Your task to perform on an android device: What's a good restaurant in Atlanta? Image 0: 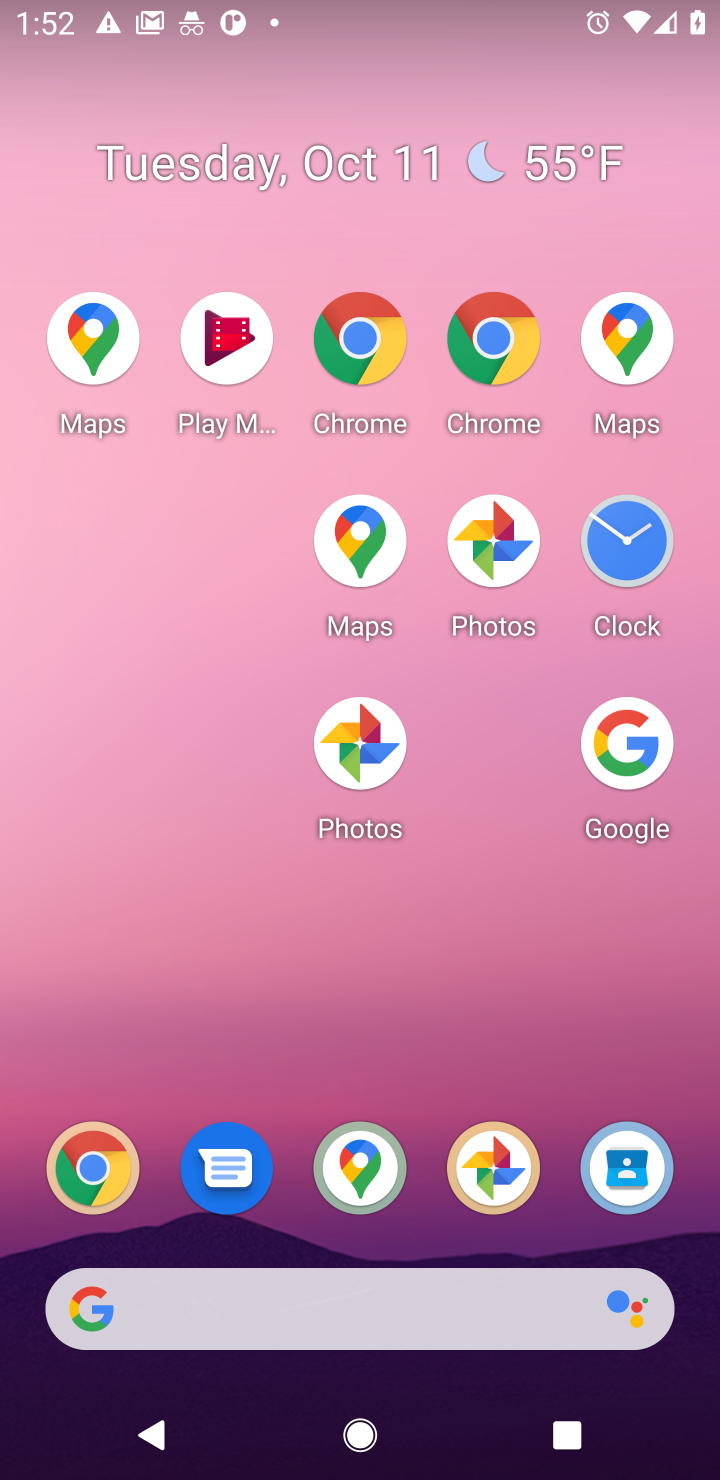
Step 0: click (620, 743)
Your task to perform on an android device: What's a good restaurant in Atlanta? Image 1: 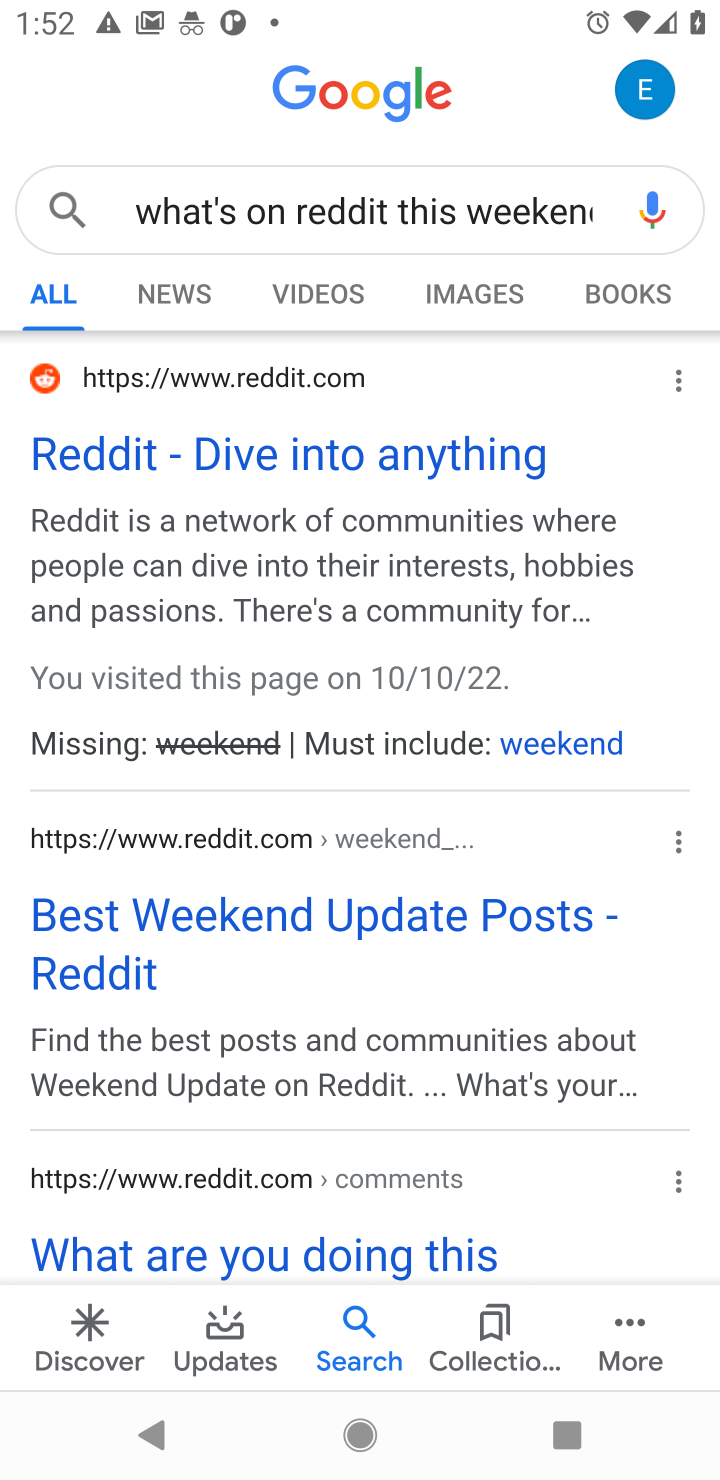
Step 1: click (480, 223)
Your task to perform on an android device: What's a good restaurant in Atlanta? Image 2: 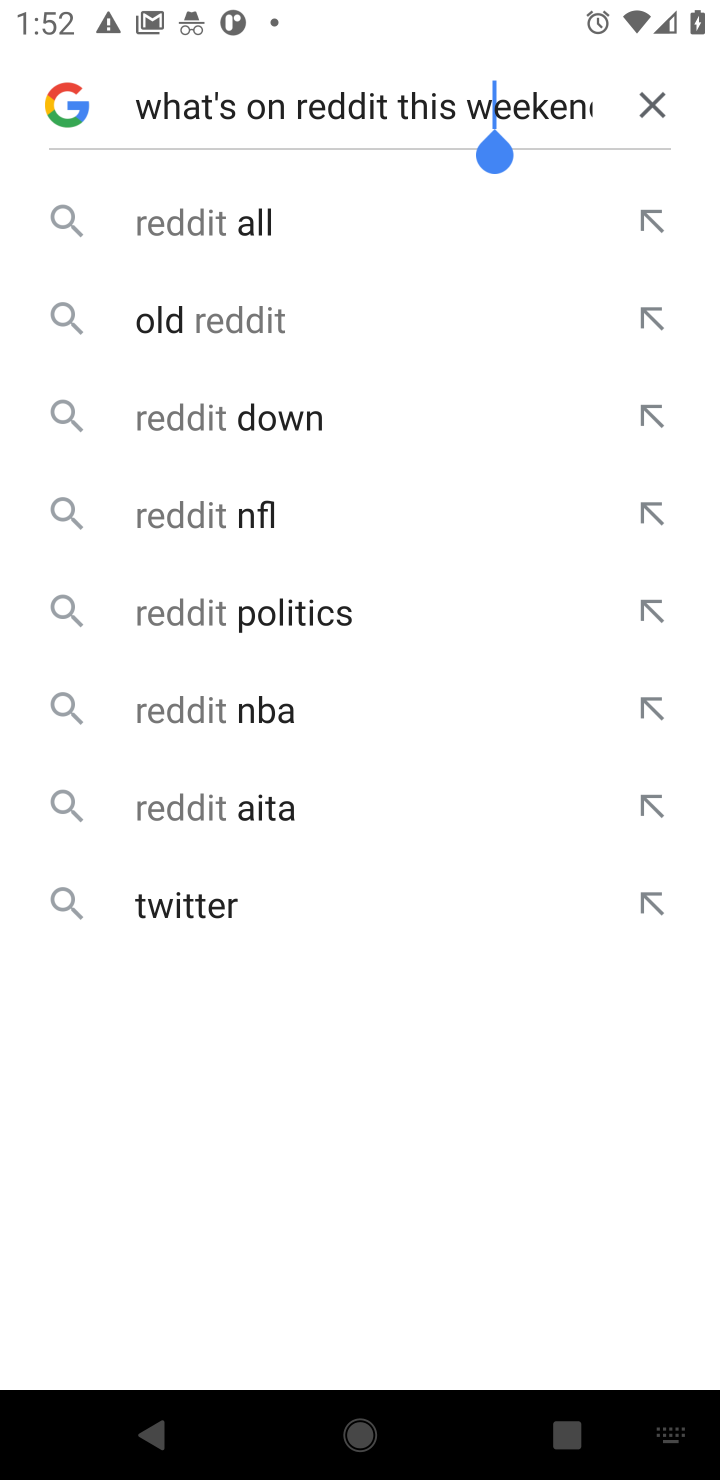
Step 2: click (667, 103)
Your task to perform on an android device: What's a good restaurant in Atlanta? Image 3: 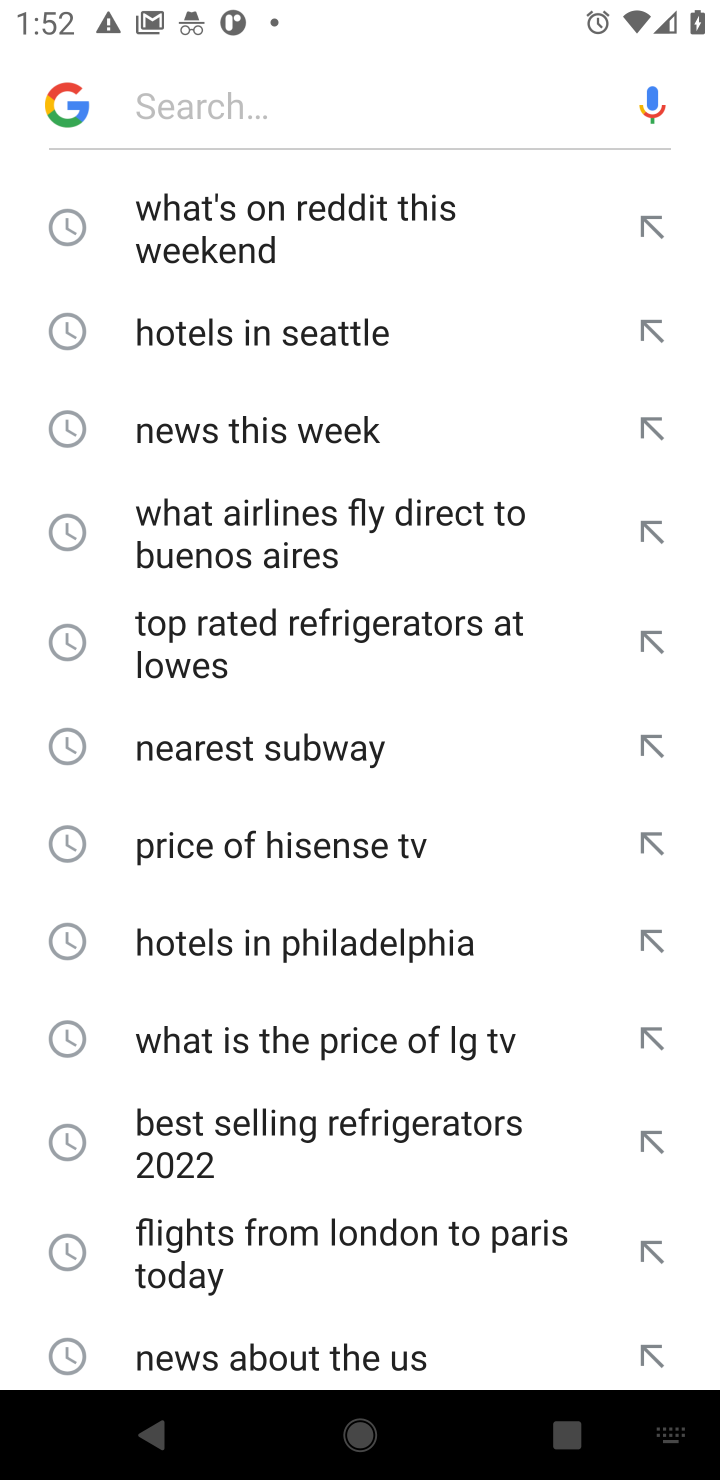
Step 3: type "good restaurant in Atlanta"
Your task to perform on an android device: What's a good restaurant in Atlanta? Image 4: 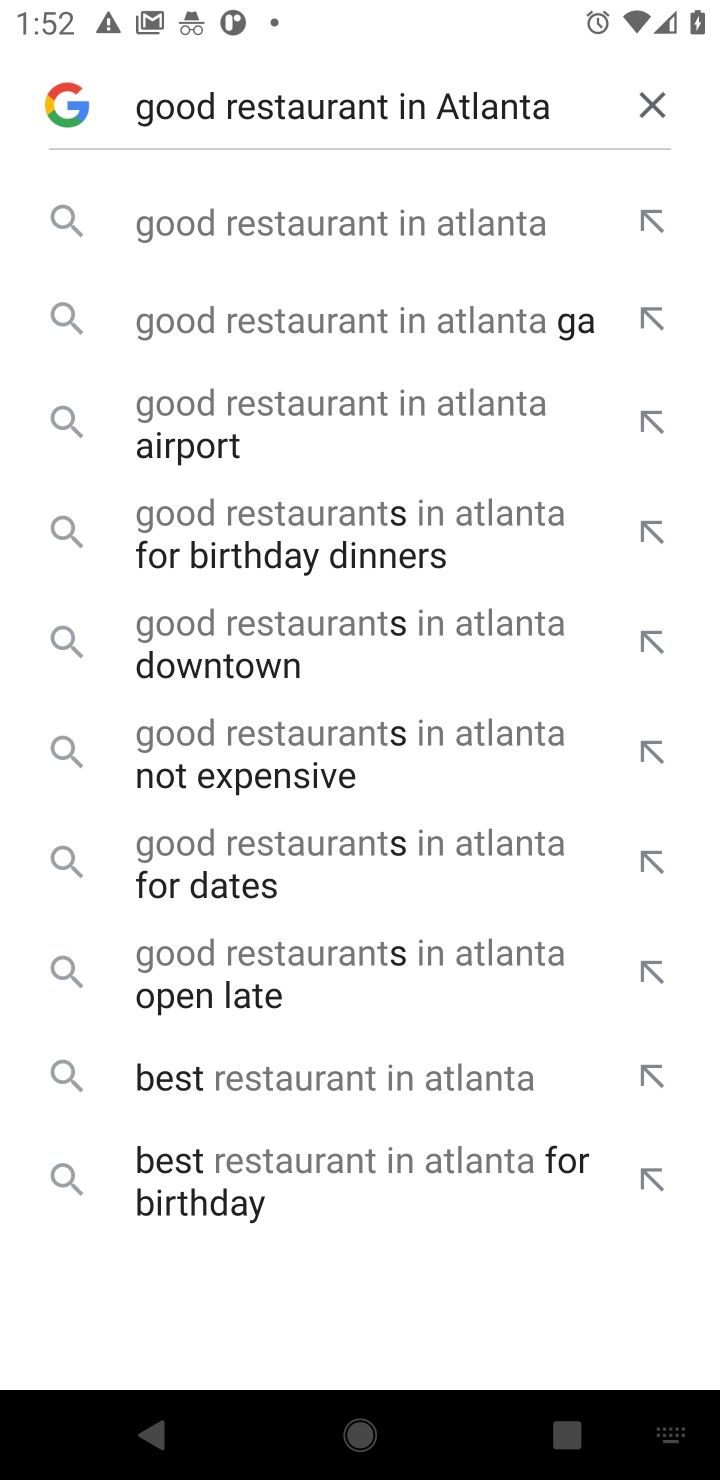
Step 4: click (479, 223)
Your task to perform on an android device: What's a good restaurant in Atlanta? Image 5: 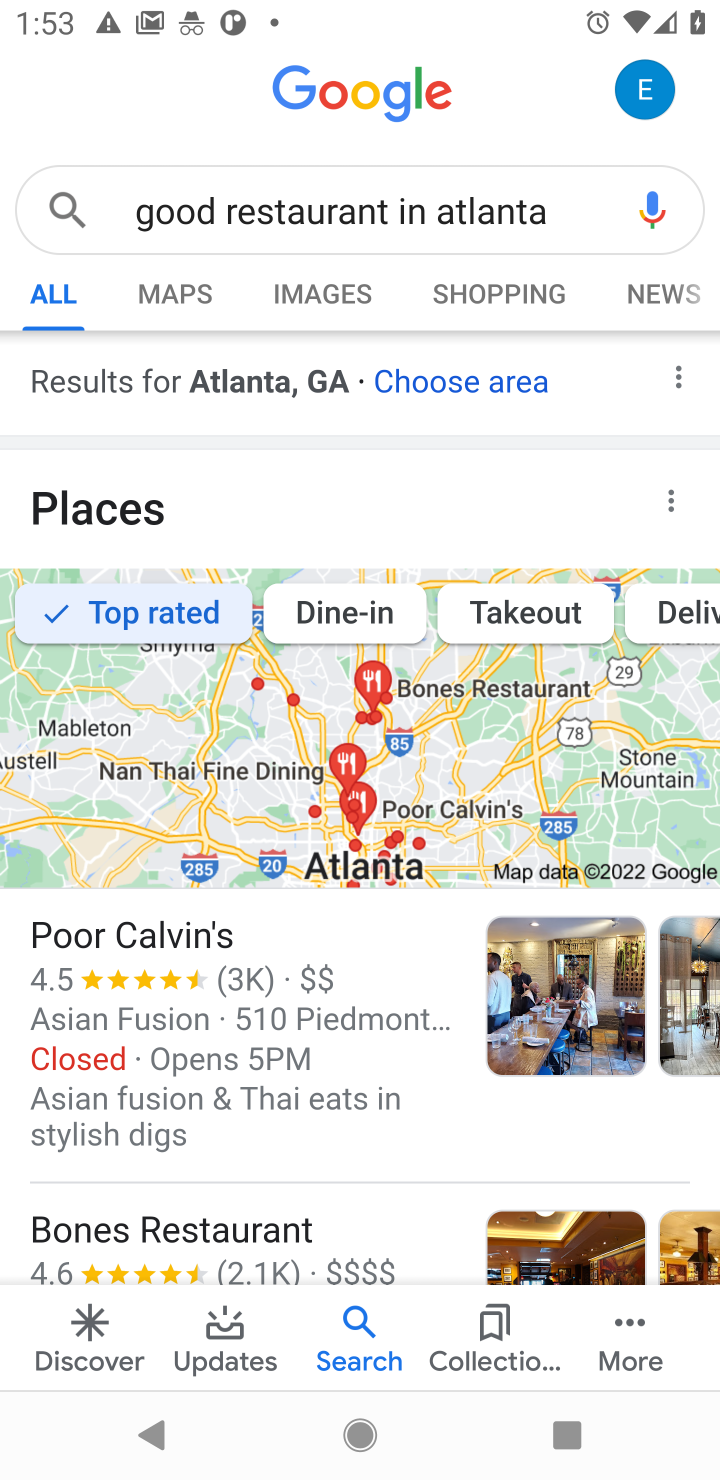
Step 5: task complete